Your task to perform on an android device: Open my contact list Image 0: 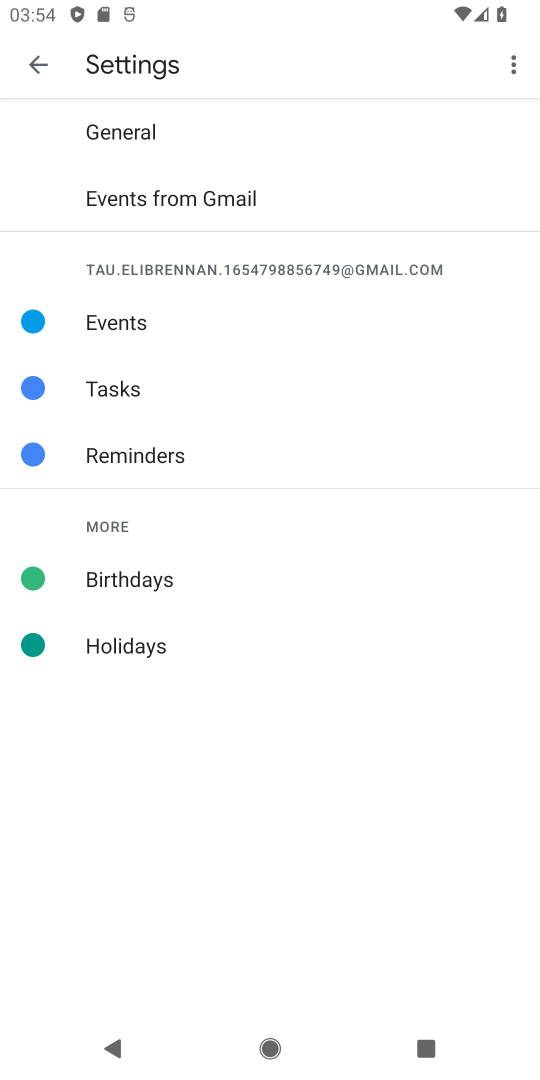
Step 0: press home button
Your task to perform on an android device: Open my contact list Image 1: 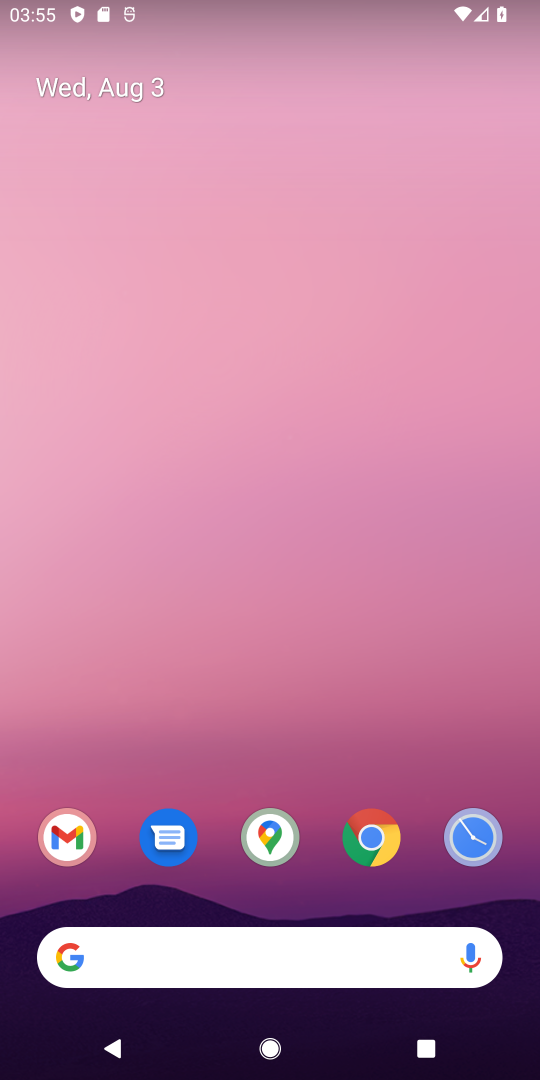
Step 1: drag from (428, 896) to (380, 72)
Your task to perform on an android device: Open my contact list Image 2: 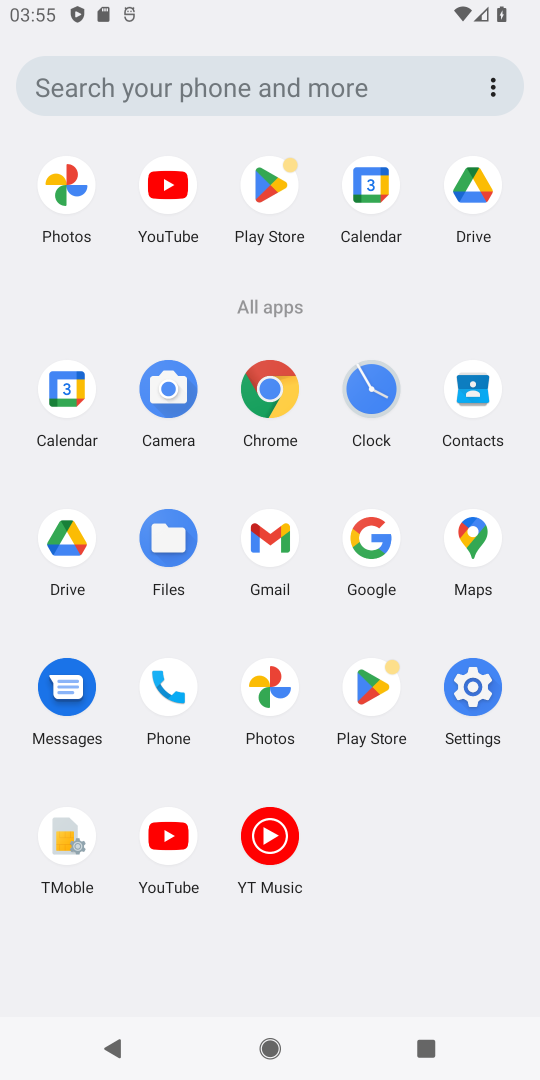
Step 2: click (475, 385)
Your task to perform on an android device: Open my contact list Image 3: 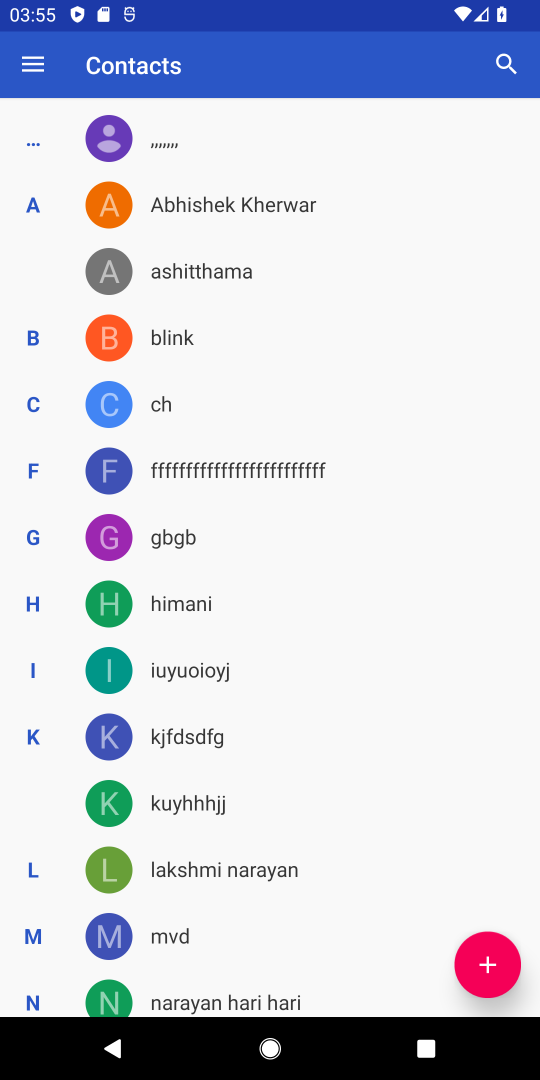
Step 3: task complete